Your task to perform on an android device: Open Reddit.com Image 0: 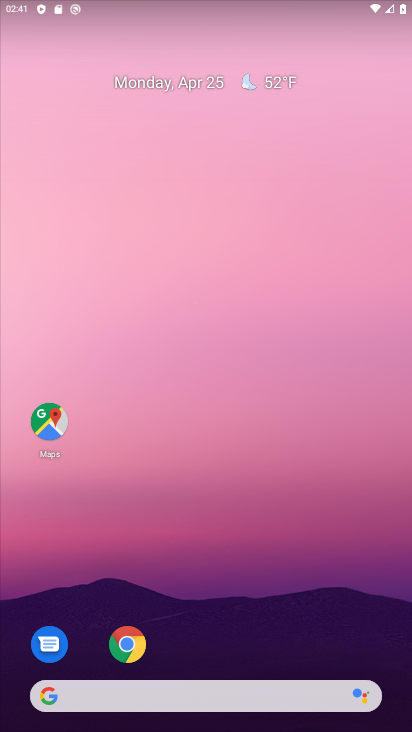
Step 0: click (115, 648)
Your task to perform on an android device: Open Reddit.com Image 1: 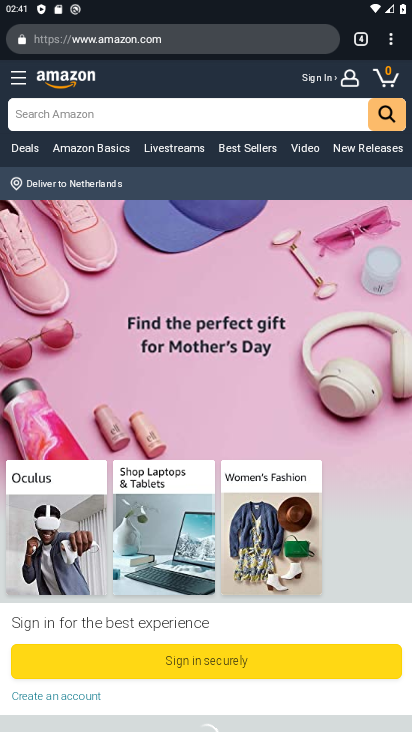
Step 1: click (160, 30)
Your task to perform on an android device: Open Reddit.com Image 2: 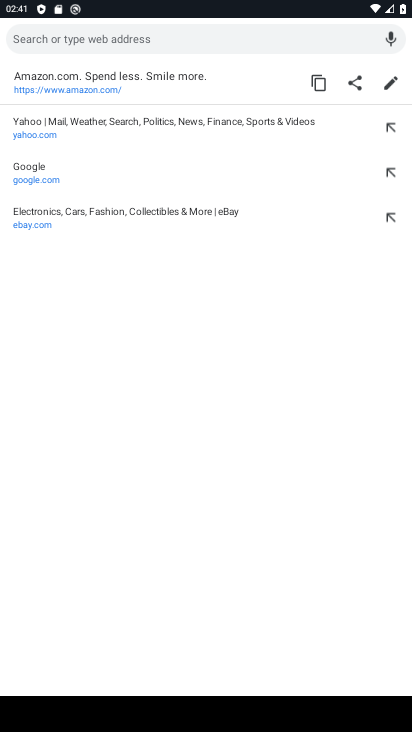
Step 2: type "reddit"
Your task to perform on an android device: Open Reddit.com Image 3: 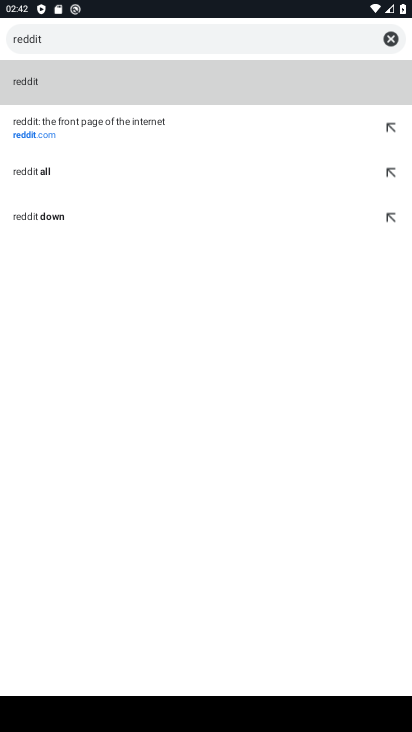
Step 3: click (49, 148)
Your task to perform on an android device: Open Reddit.com Image 4: 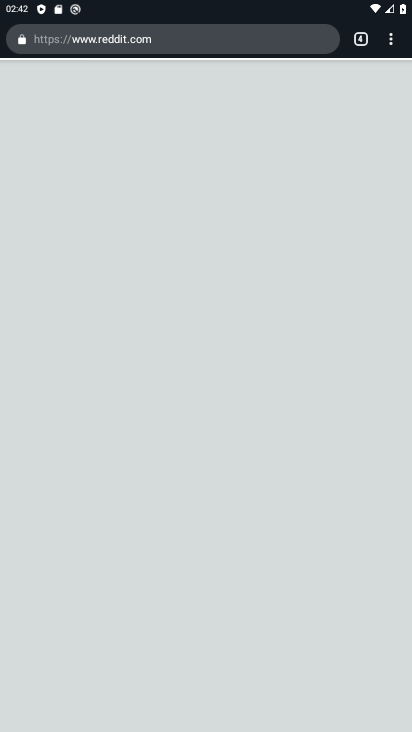
Step 4: task complete